Your task to perform on an android device: Go to accessibility settings Image 0: 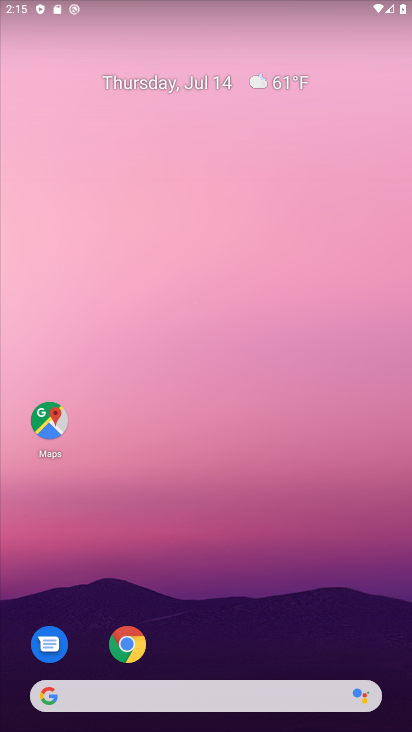
Step 0: drag from (342, 605) to (185, 0)
Your task to perform on an android device: Go to accessibility settings Image 1: 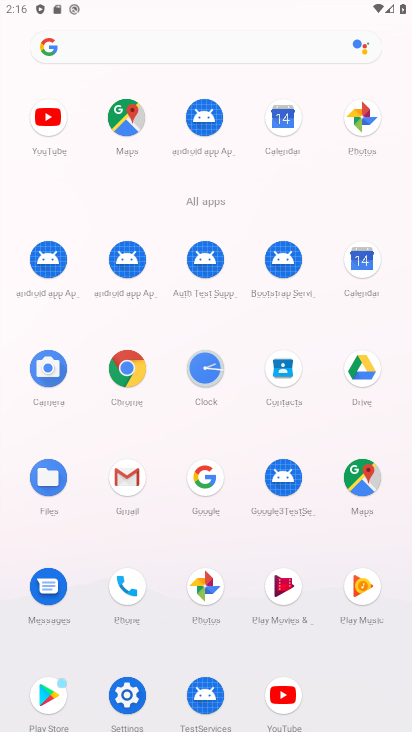
Step 1: click (129, 702)
Your task to perform on an android device: Go to accessibility settings Image 2: 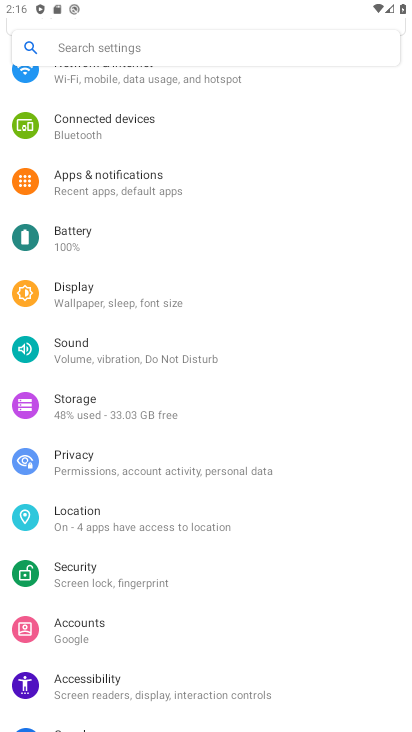
Step 2: click (97, 691)
Your task to perform on an android device: Go to accessibility settings Image 3: 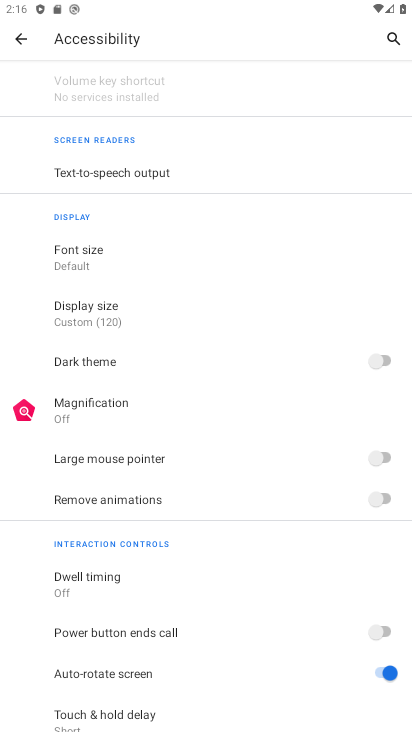
Step 3: task complete